Your task to perform on an android device: snooze an email in the gmail app Image 0: 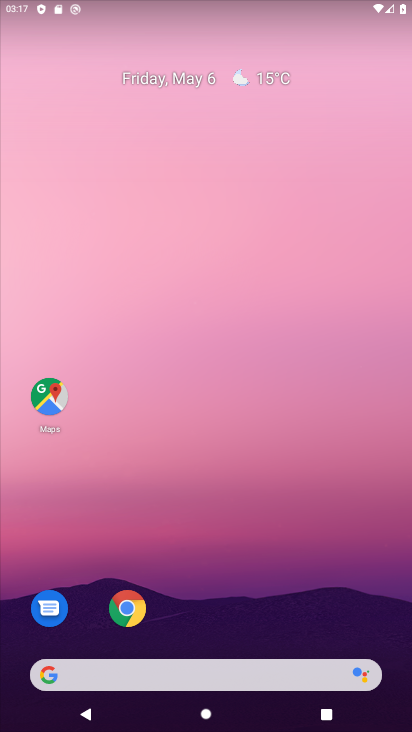
Step 0: drag from (193, 660) to (200, 328)
Your task to perform on an android device: snooze an email in the gmail app Image 1: 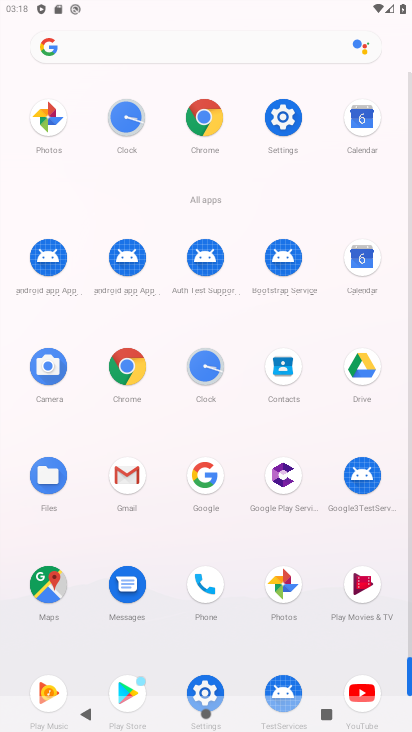
Step 1: click (136, 477)
Your task to perform on an android device: snooze an email in the gmail app Image 2: 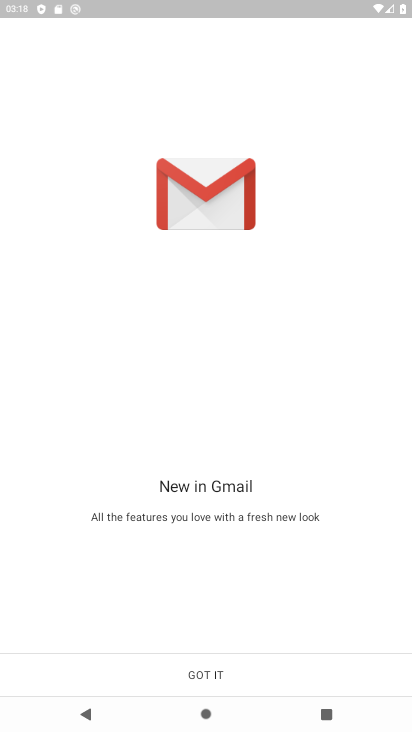
Step 2: click (253, 669)
Your task to perform on an android device: snooze an email in the gmail app Image 3: 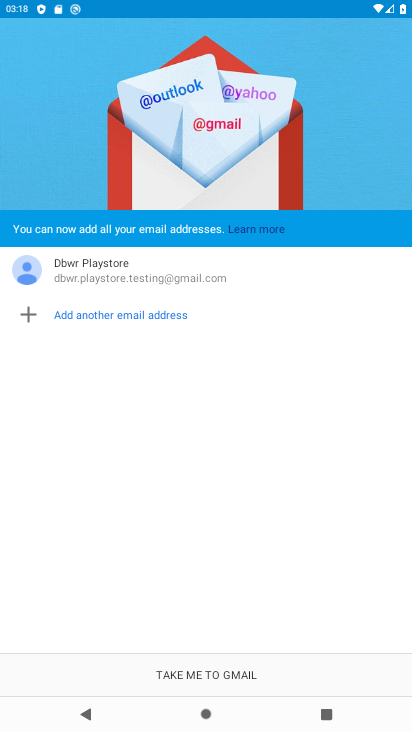
Step 3: click (253, 669)
Your task to perform on an android device: snooze an email in the gmail app Image 4: 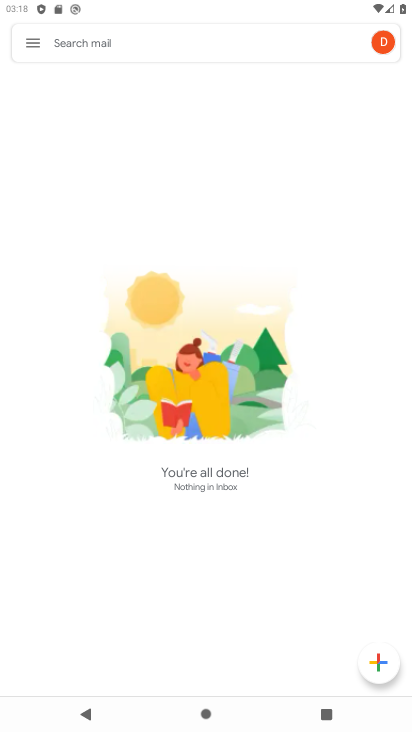
Step 4: click (37, 49)
Your task to perform on an android device: snooze an email in the gmail app Image 5: 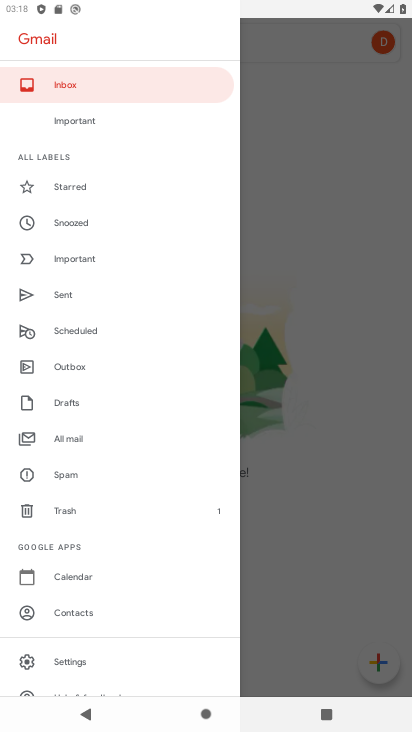
Step 5: click (289, 263)
Your task to perform on an android device: snooze an email in the gmail app Image 6: 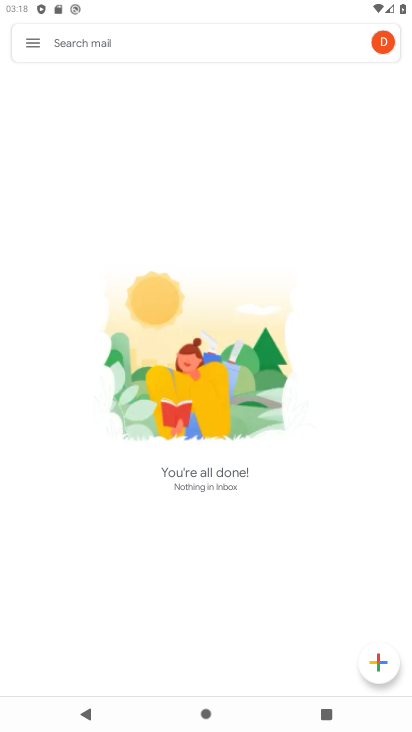
Step 6: click (30, 42)
Your task to perform on an android device: snooze an email in the gmail app Image 7: 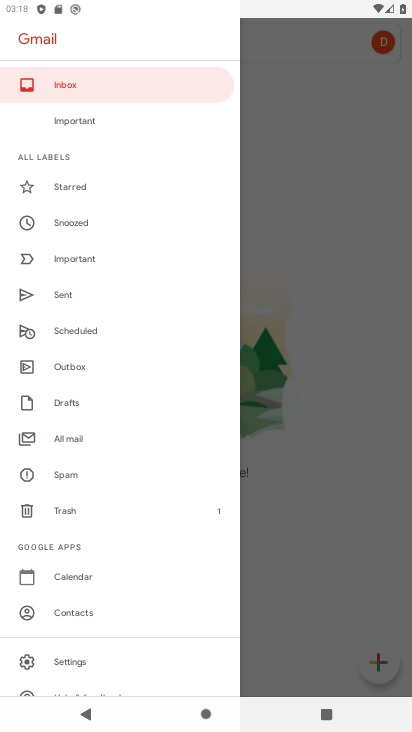
Step 7: click (76, 436)
Your task to perform on an android device: snooze an email in the gmail app Image 8: 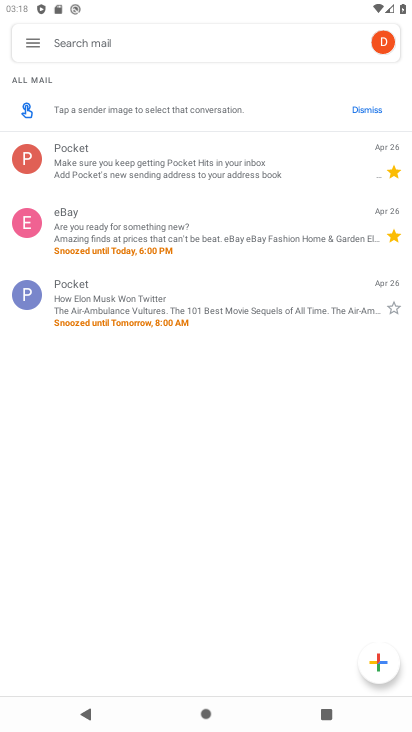
Step 8: click (19, 155)
Your task to perform on an android device: snooze an email in the gmail app Image 9: 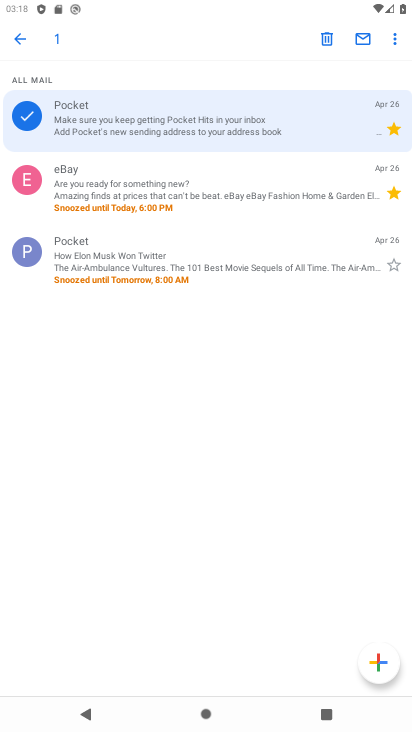
Step 9: click (397, 38)
Your task to perform on an android device: snooze an email in the gmail app Image 10: 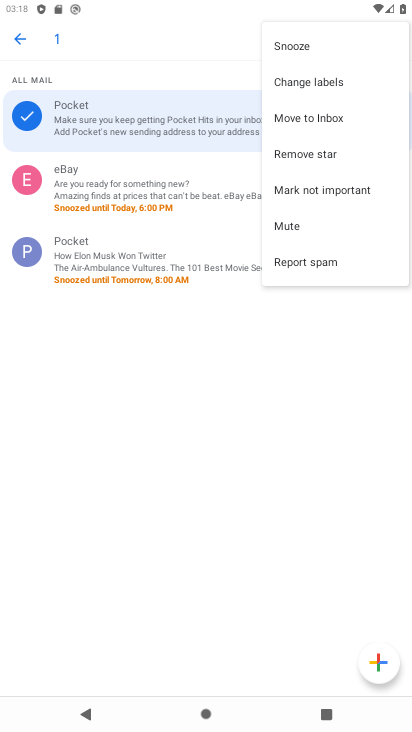
Step 10: click (319, 40)
Your task to perform on an android device: snooze an email in the gmail app Image 11: 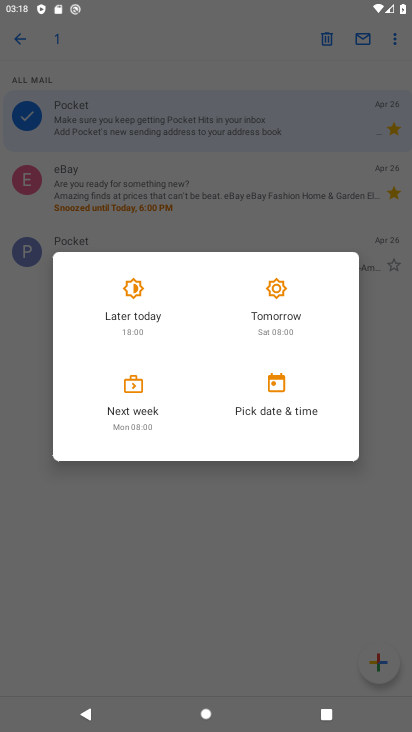
Step 11: click (130, 328)
Your task to perform on an android device: snooze an email in the gmail app Image 12: 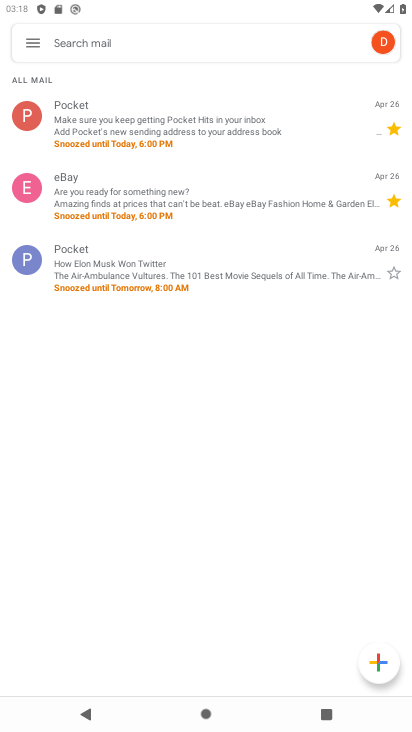
Step 12: task complete